Your task to perform on an android device: Go to accessibility settings Image 0: 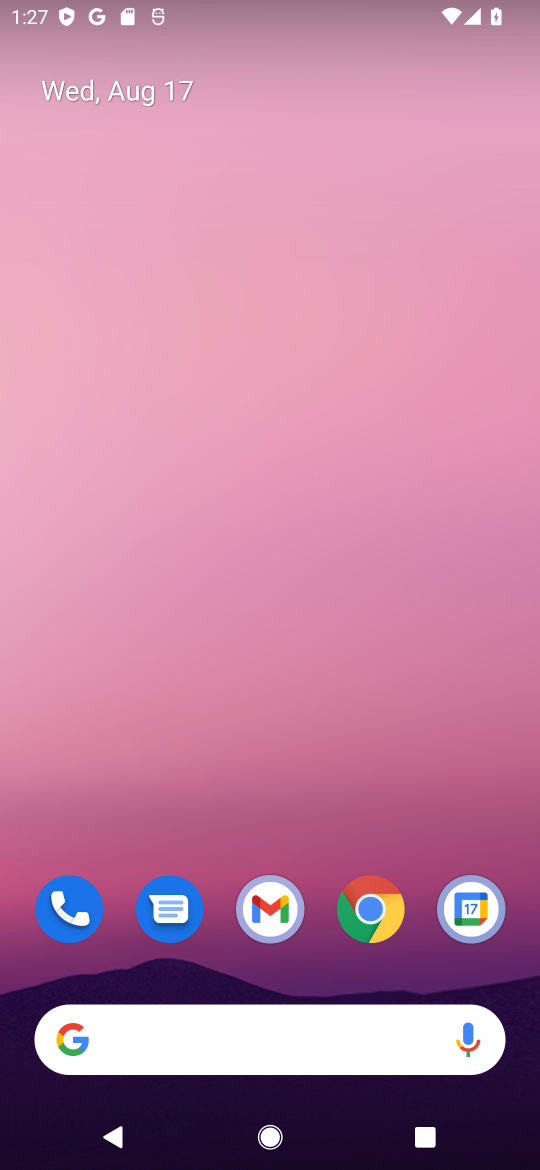
Step 0: drag from (333, 802) to (319, 81)
Your task to perform on an android device: Go to accessibility settings Image 1: 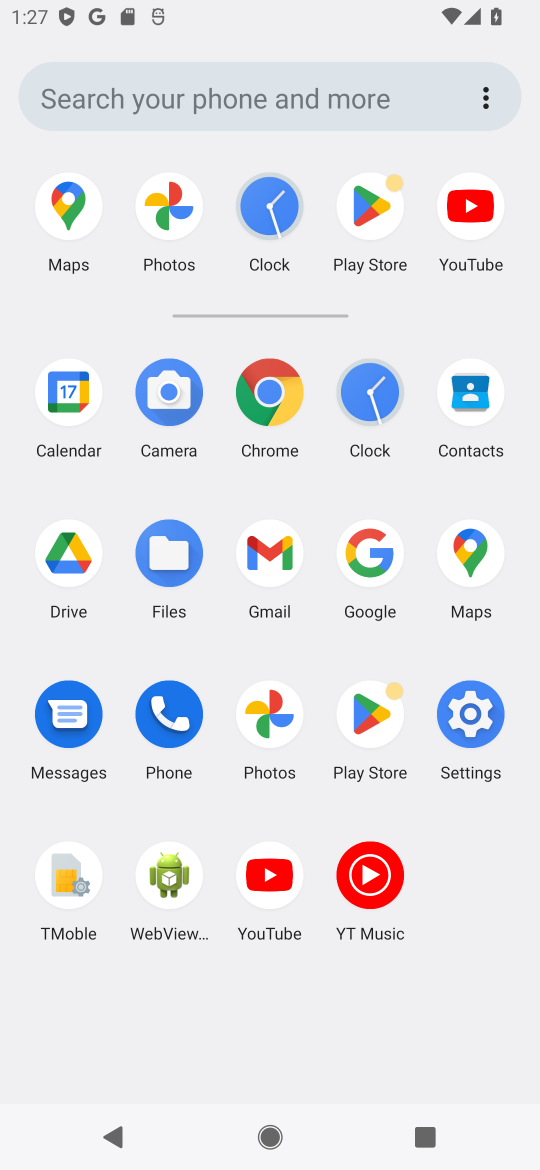
Step 1: click (473, 717)
Your task to perform on an android device: Go to accessibility settings Image 2: 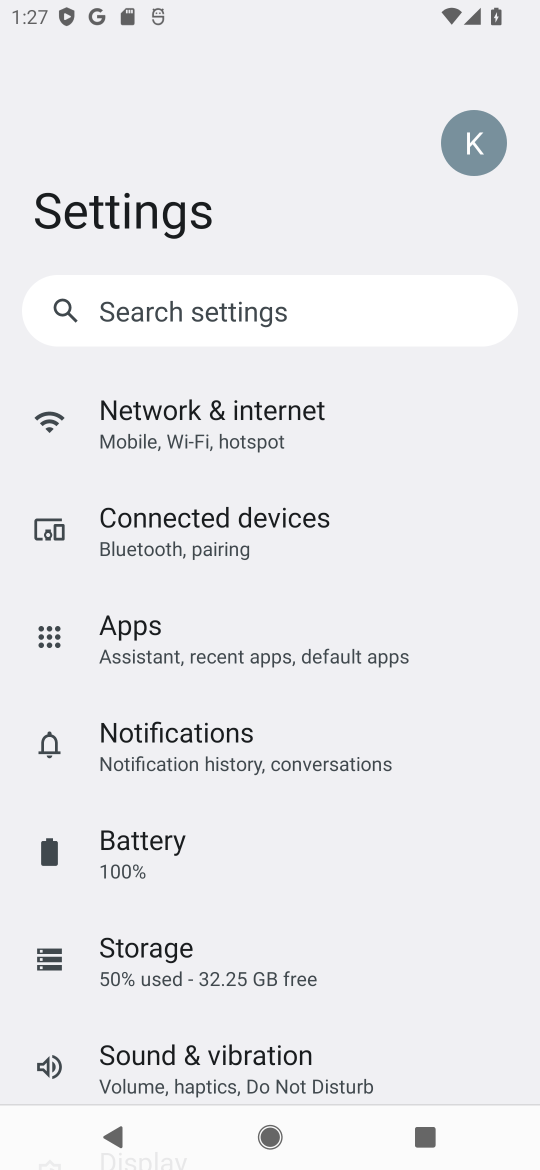
Step 2: drag from (402, 940) to (382, 441)
Your task to perform on an android device: Go to accessibility settings Image 3: 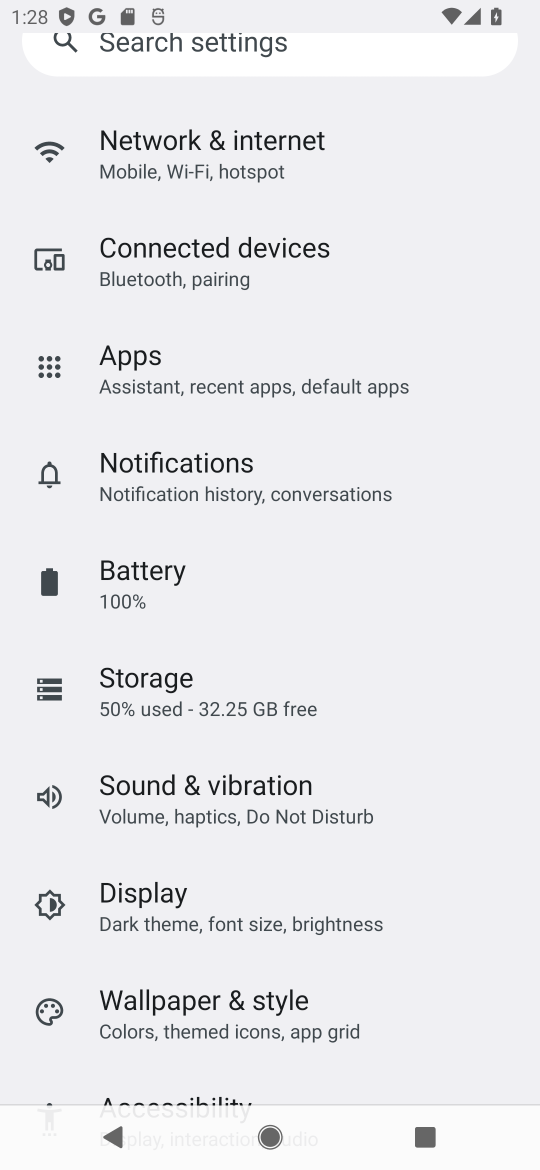
Step 3: drag from (290, 944) to (278, 373)
Your task to perform on an android device: Go to accessibility settings Image 4: 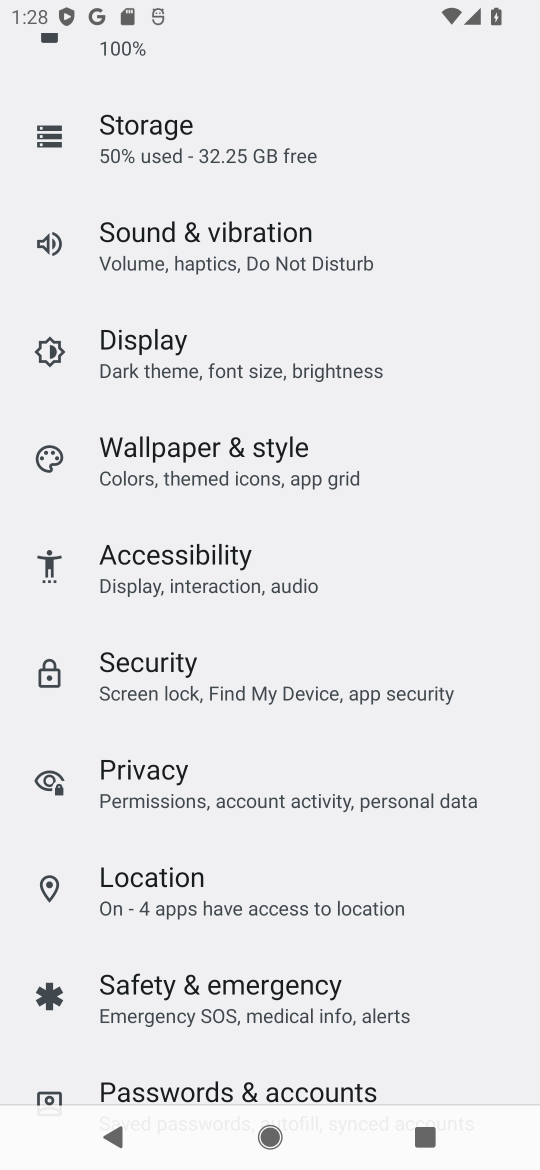
Step 4: click (195, 551)
Your task to perform on an android device: Go to accessibility settings Image 5: 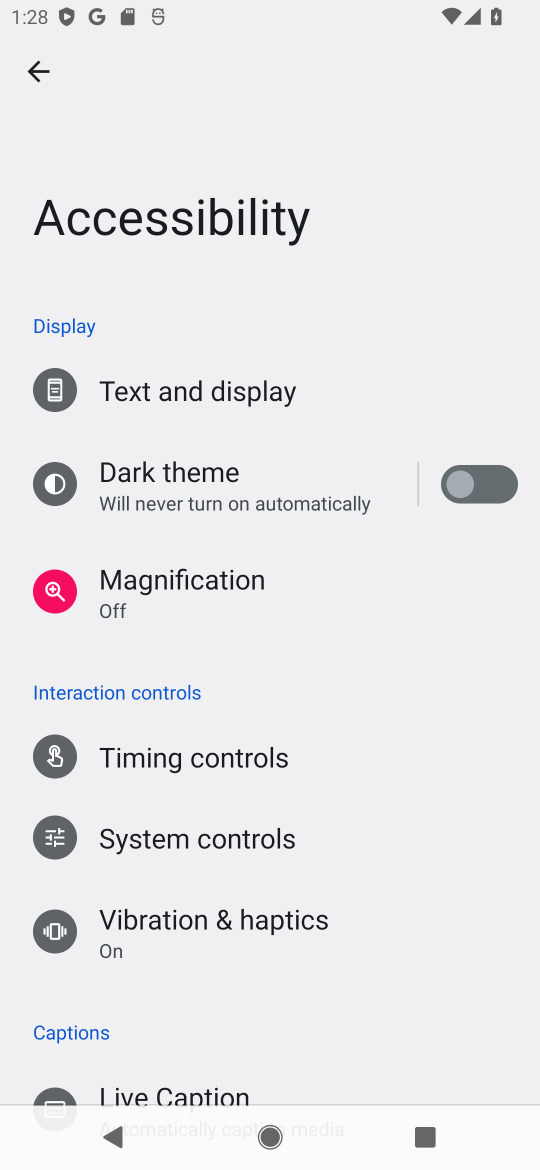
Step 5: task complete